Your task to perform on an android device: empty trash in the gmail app Image 0: 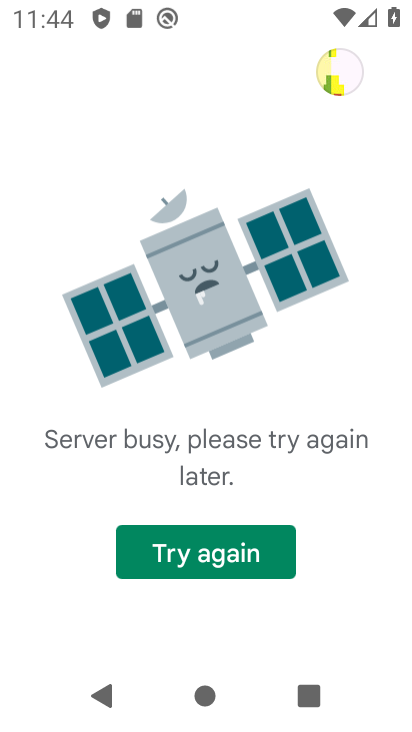
Step 0: press home button
Your task to perform on an android device: empty trash in the gmail app Image 1: 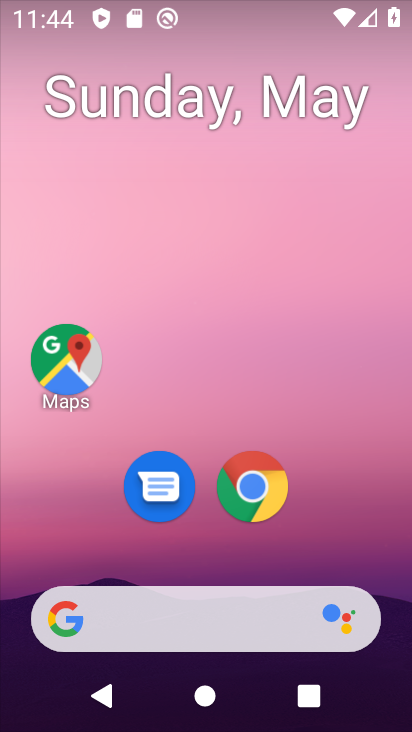
Step 1: drag from (400, 612) to (242, 40)
Your task to perform on an android device: empty trash in the gmail app Image 2: 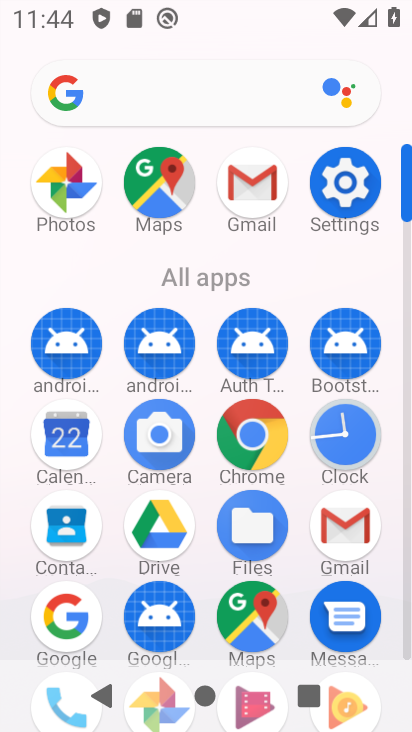
Step 2: click (409, 640)
Your task to perform on an android device: empty trash in the gmail app Image 3: 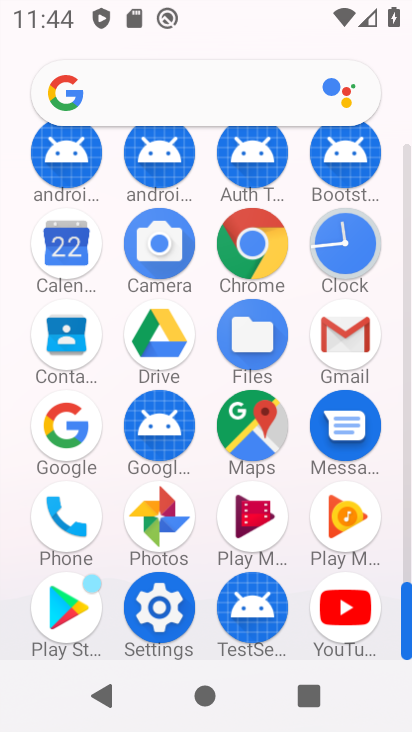
Step 3: click (345, 333)
Your task to perform on an android device: empty trash in the gmail app Image 4: 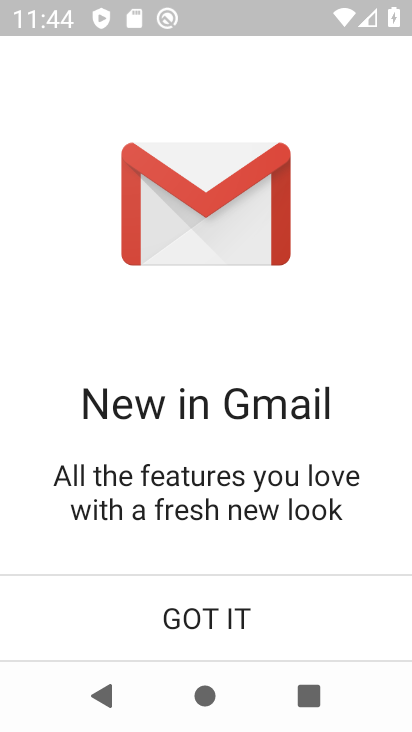
Step 4: click (202, 615)
Your task to perform on an android device: empty trash in the gmail app Image 5: 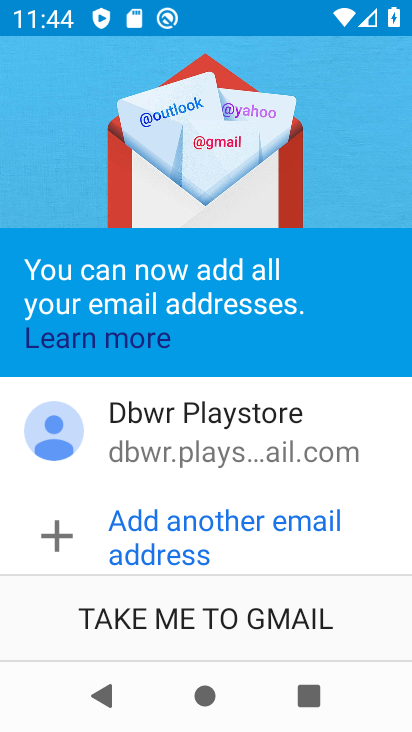
Step 5: click (202, 615)
Your task to perform on an android device: empty trash in the gmail app Image 6: 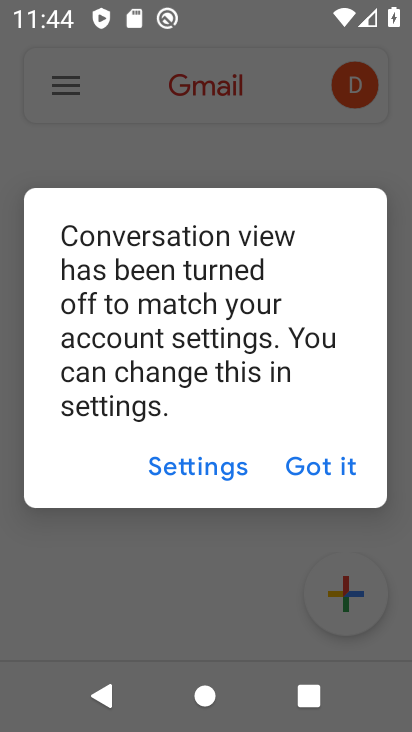
Step 6: click (313, 456)
Your task to perform on an android device: empty trash in the gmail app Image 7: 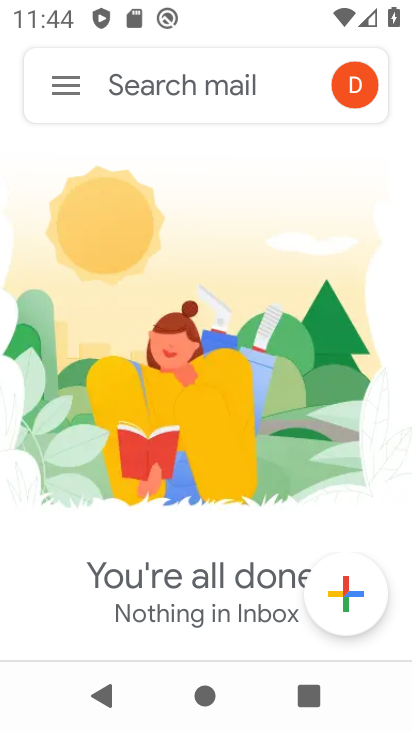
Step 7: click (61, 85)
Your task to perform on an android device: empty trash in the gmail app Image 8: 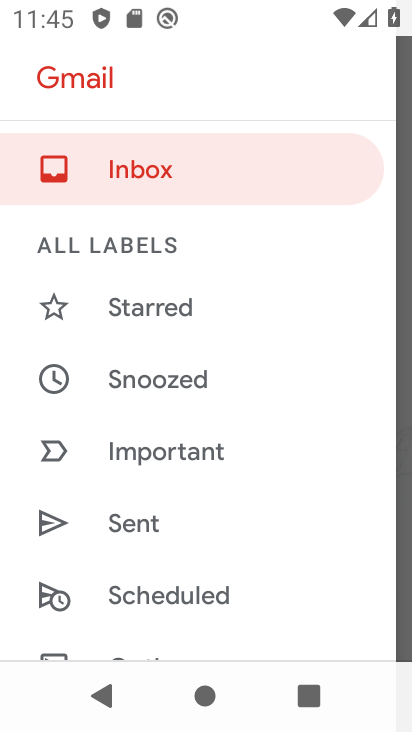
Step 8: drag from (194, 546) to (216, 117)
Your task to perform on an android device: empty trash in the gmail app Image 9: 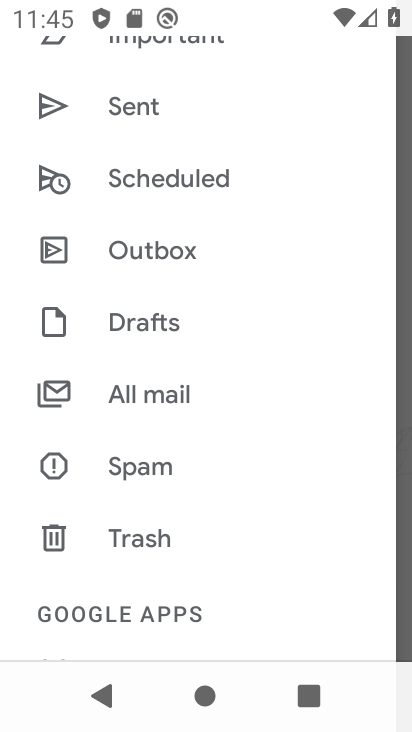
Step 9: click (129, 534)
Your task to perform on an android device: empty trash in the gmail app Image 10: 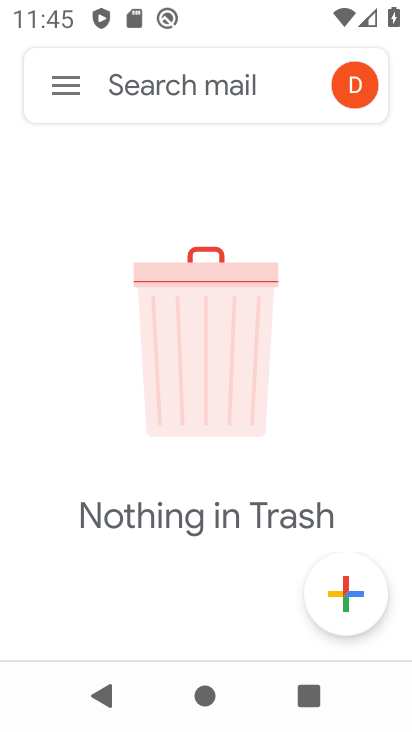
Step 10: task complete